Your task to perform on an android device: Open Wikipedia Image 0: 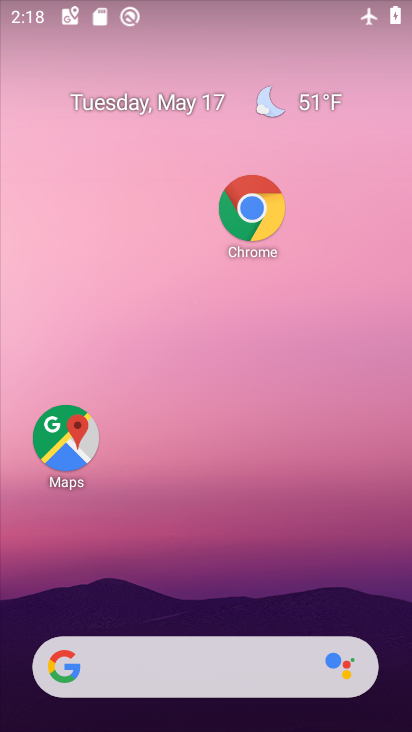
Step 0: click (274, 213)
Your task to perform on an android device: Open Wikipedia Image 1: 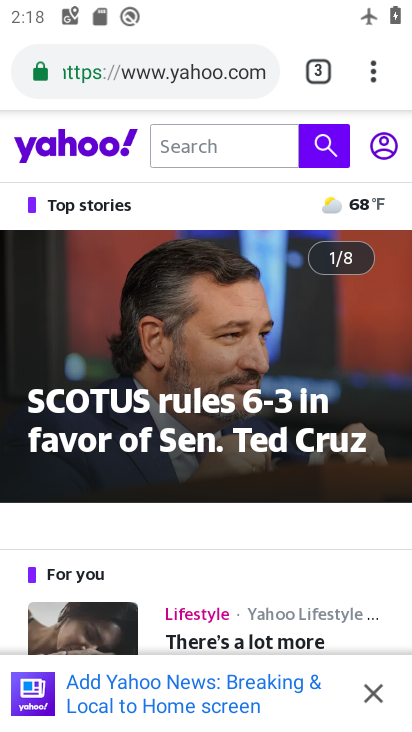
Step 1: click (310, 42)
Your task to perform on an android device: Open Wikipedia Image 2: 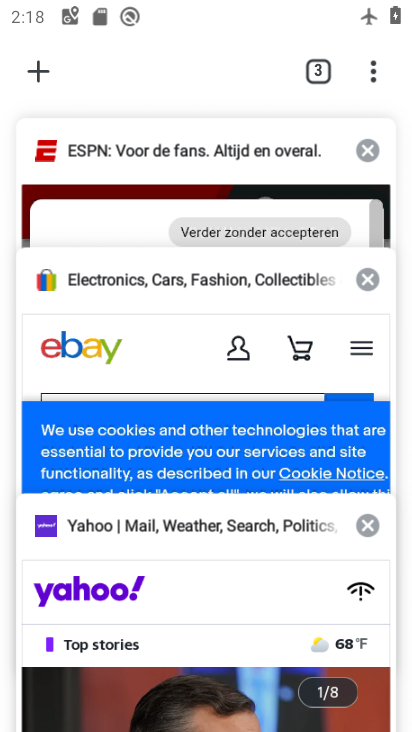
Step 2: click (45, 61)
Your task to perform on an android device: Open Wikipedia Image 3: 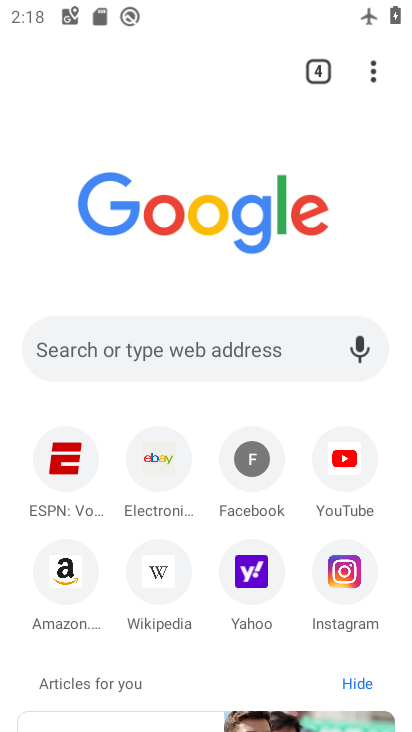
Step 3: click (167, 561)
Your task to perform on an android device: Open Wikipedia Image 4: 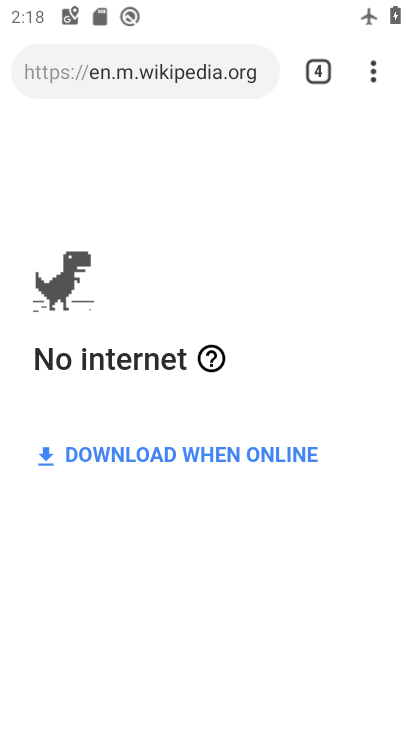
Step 4: task complete